Your task to perform on an android device: Do I have any events this weekend? Image 0: 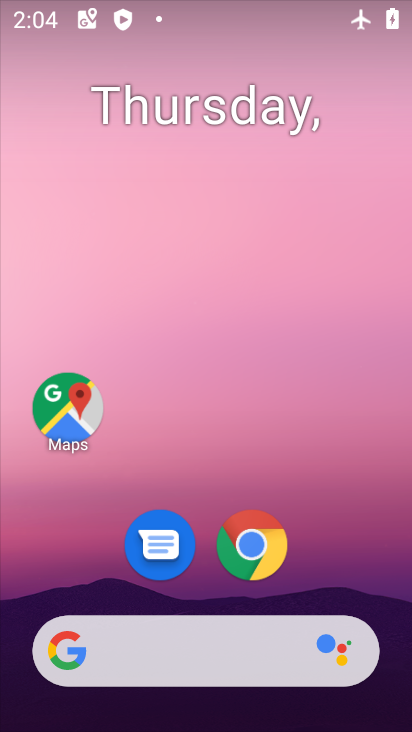
Step 0: drag from (274, 713) to (284, 251)
Your task to perform on an android device: Do I have any events this weekend? Image 1: 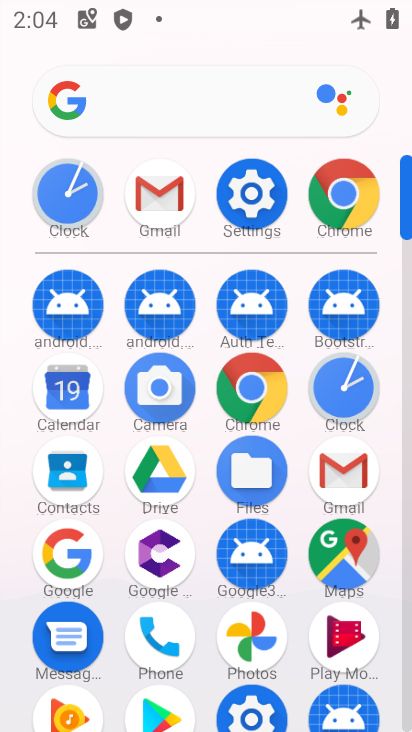
Step 1: click (61, 406)
Your task to perform on an android device: Do I have any events this weekend? Image 2: 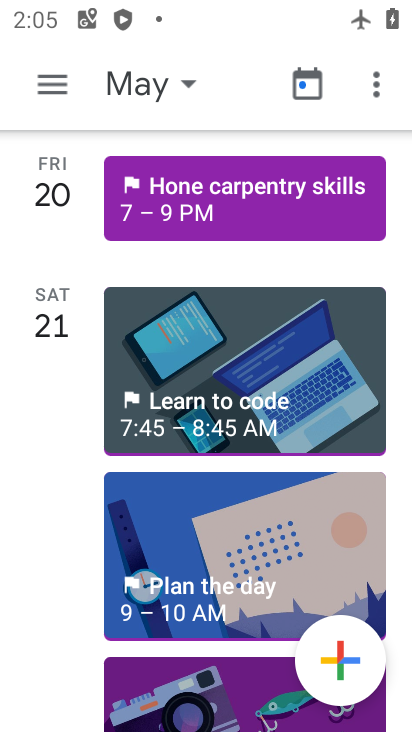
Step 2: task complete